Your task to perform on an android device: add a contact in the contacts app Image 0: 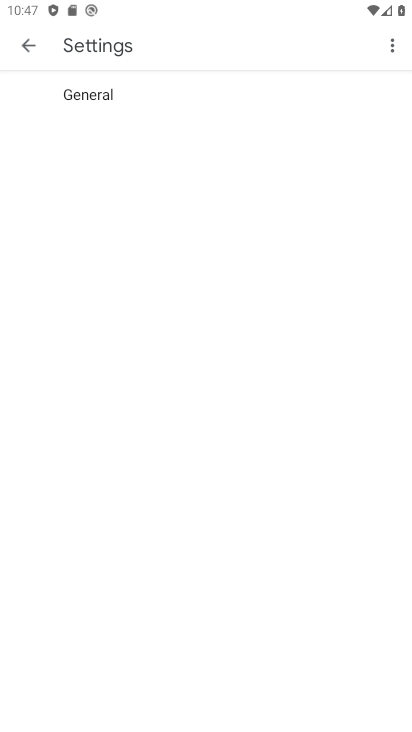
Step 0: press home button
Your task to perform on an android device: add a contact in the contacts app Image 1: 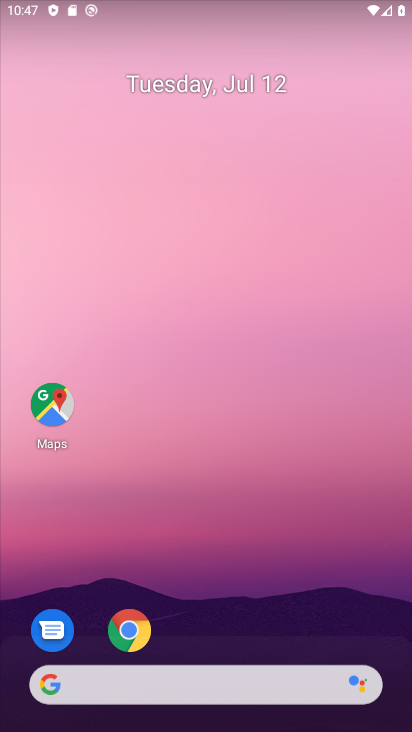
Step 1: drag from (355, 619) to (268, 190)
Your task to perform on an android device: add a contact in the contacts app Image 2: 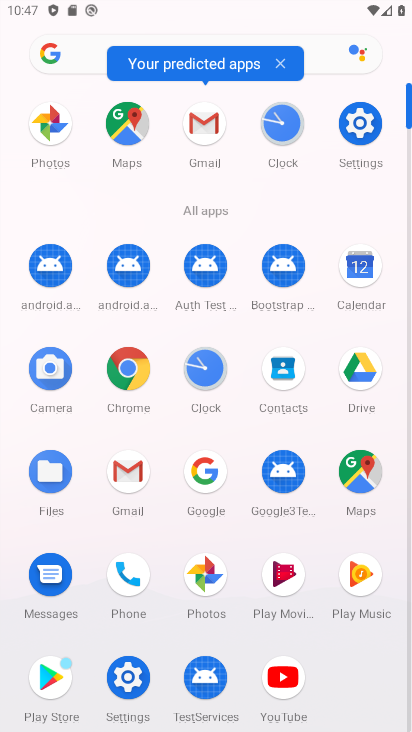
Step 2: click (287, 370)
Your task to perform on an android device: add a contact in the contacts app Image 3: 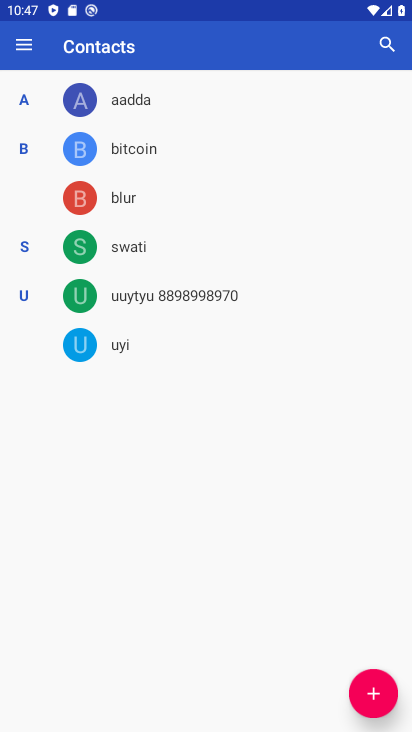
Step 3: click (388, 684)
Your task to perform on an android device: add a contact in the contacts app Image 4: 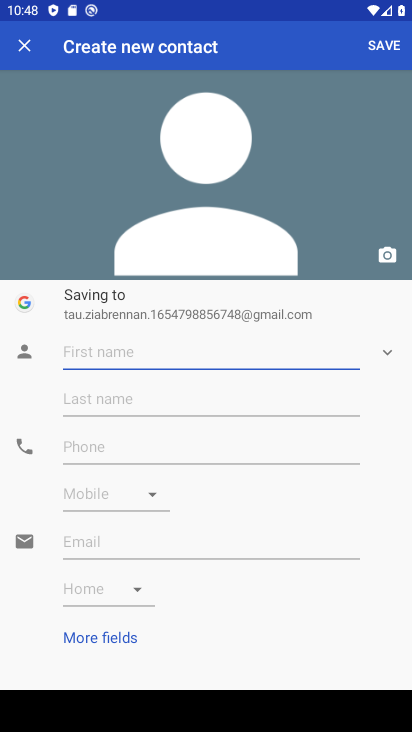
Step 4: type "jyotimamakibhanji"
Your task to perform on an android device: add a contact in the contacts app Image 5: 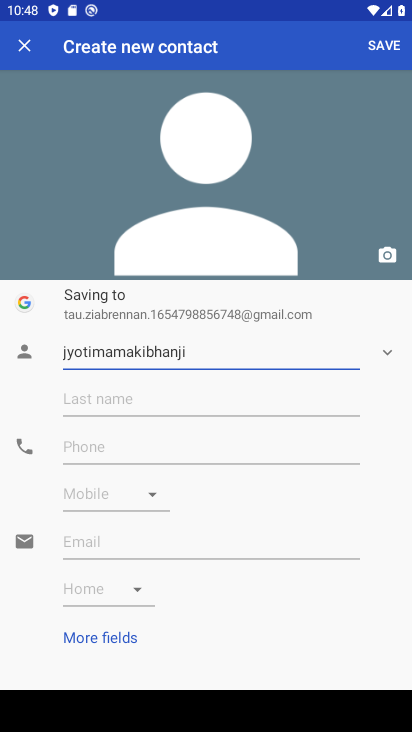
Step 5: click (388, 44)
Your task to perform on an android device: add a contact in the contacts app Image 6: 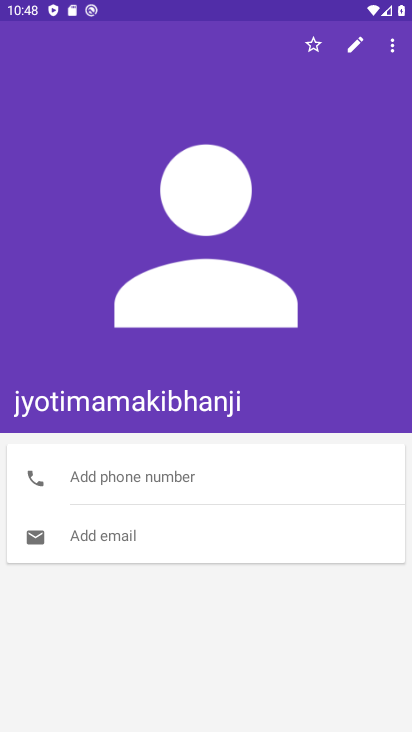
Step 6: task complete